Your task to perform on an android device: Open CNN.com Image 0: 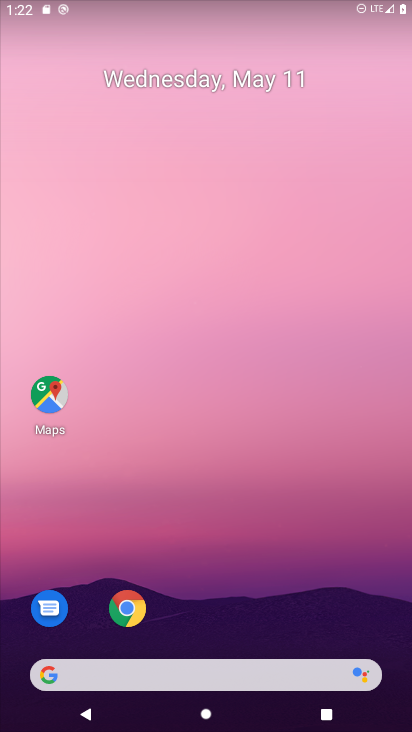
Step 0: click (257, 684)
Your task to perform on an android device: Open CNN.com Image 1: 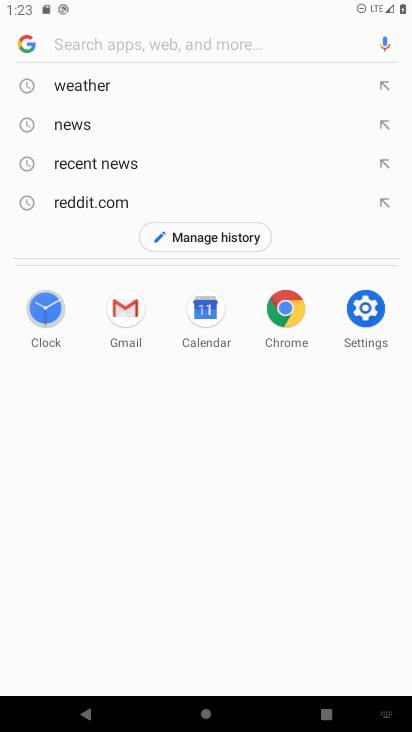
Step 1: type "cnn.com"
Your task to perform on an android device: Open CNN.com Image 2: 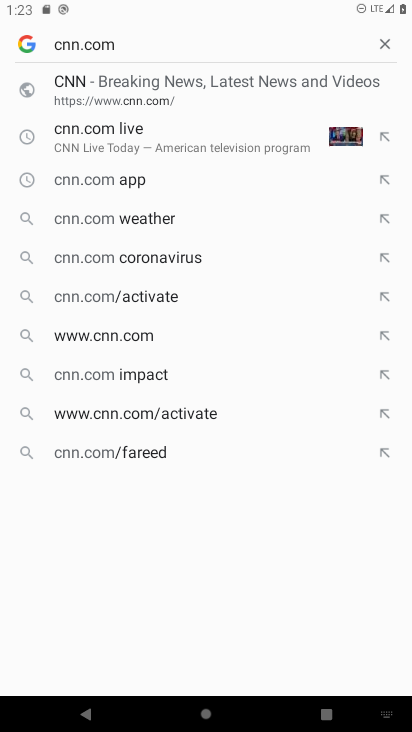
Step 2: click (71, 93)
Your task to perform on an android device: Open CNN.com Image 3: 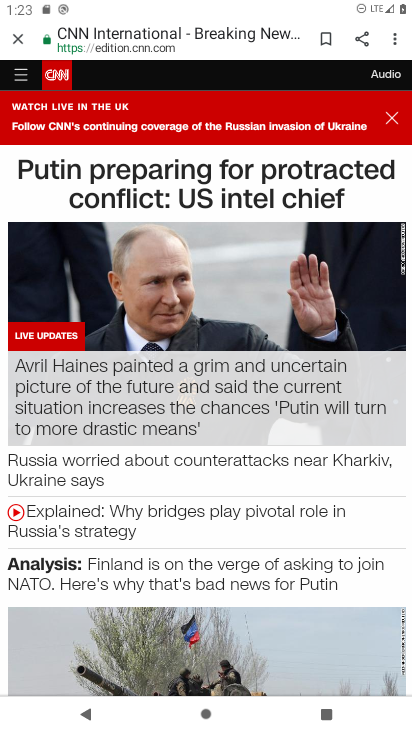
Step 3: task complete